Your task to perform on an android device: Open eBay Image 0: 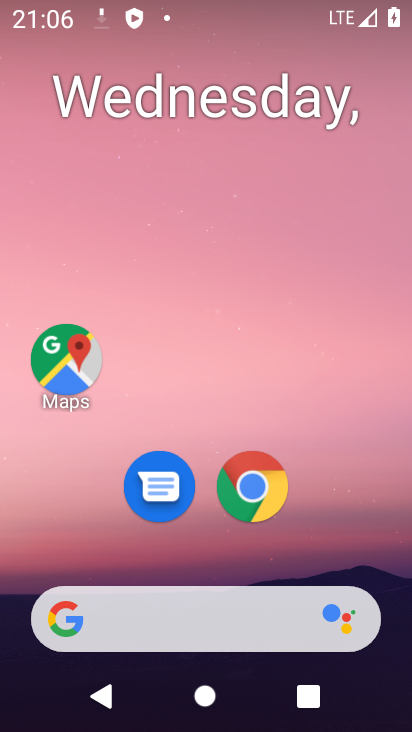
Step 0: click (264, 494)
Your task to perform on an android device: Open eBay Image 1: 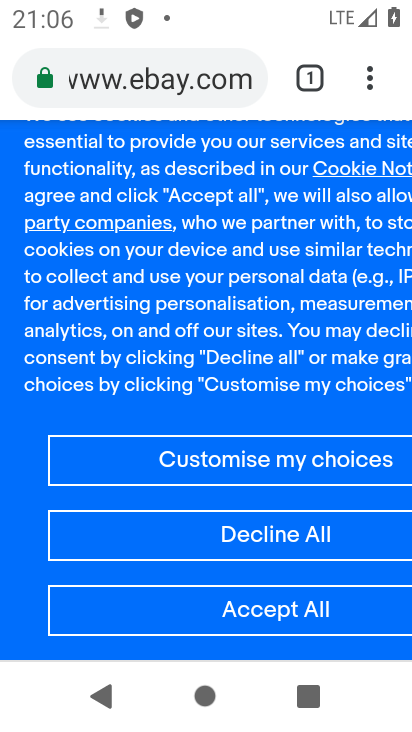
Step 1: task complete